Your task to perform on an android device: Open calendar and show me the fourth week of next month Image 0: 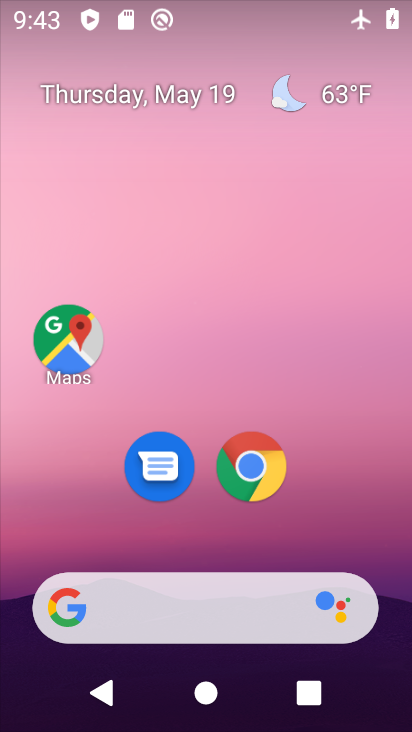
Step 0: drag from (393, 636) to (276, 84)
Your task to perform on an android device: Open calendar and show me the fourth week of next month Image 1: 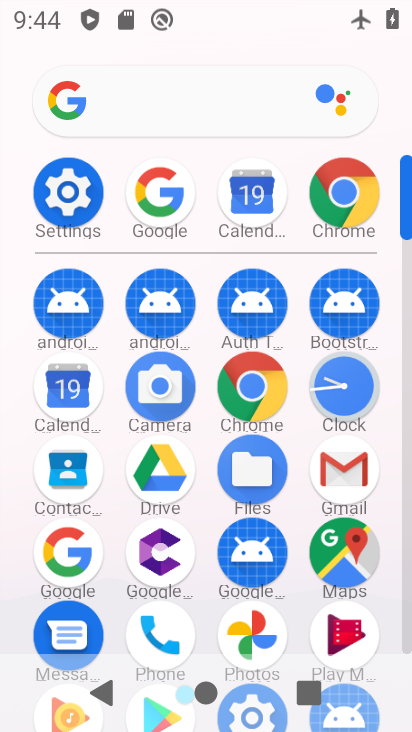
Step 1: click (84, 396)
Your task to perform on an android device: Open calendar and show me the fourth week of next month Image 2: 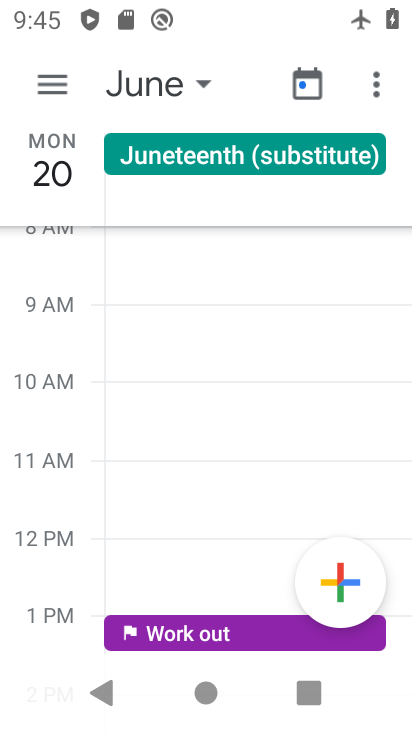
Step 2: click (156, 80)
Your task to perform on an android device: Open calendar and show me the fourth week of next month Image 3: 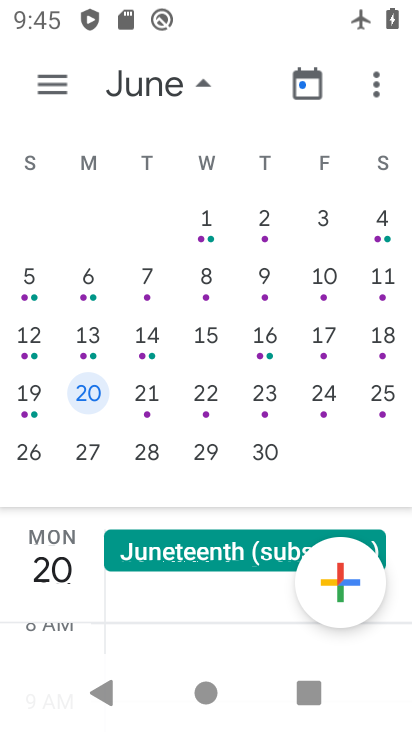
Step 3: drag from (362, 308) to (17, 319)
Your task to perform on an android device: Open calendar and show me the fourth week of next month Image 4: 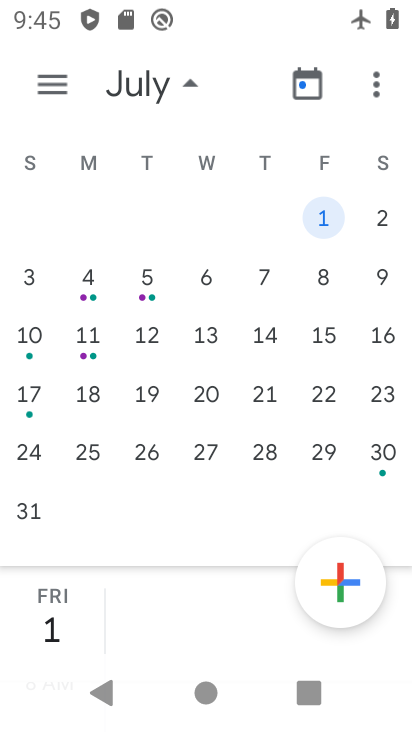
Step 4: click (375, 450)
Your task to perform on an android device: Open calendar and show me the fourth week of next month Image 5: 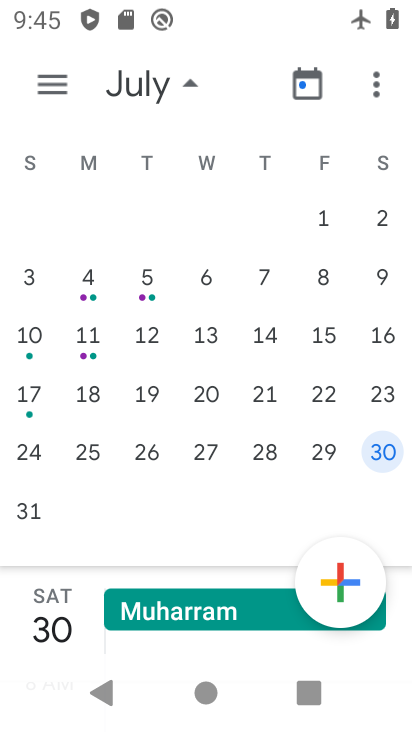
Step 5: task complete